Your task to perform on an android device: remove spam from my inbox in the gmail app Image 0: 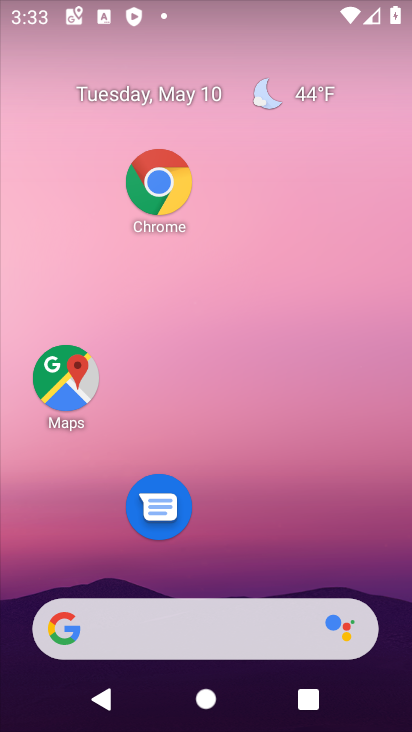
Step 0: drag from (298, 555) to (273, 232)
Your task to perform on an android device: remove spam from my inbox in the gmail app Image 1: 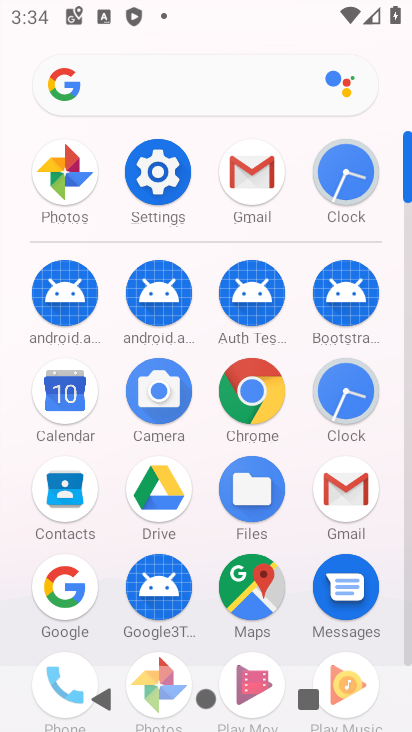
Step 1: click (356, 483)
Your task to perform on an android device: remove spam from my inbox in the gmail app Image 2: 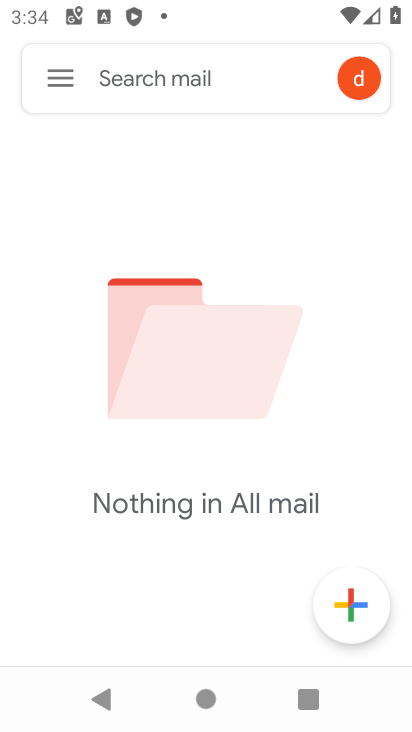
Step 2: click (75, 86)
Your task to perform on an android device: remove spam from my inbox in the gmail app Image 3: 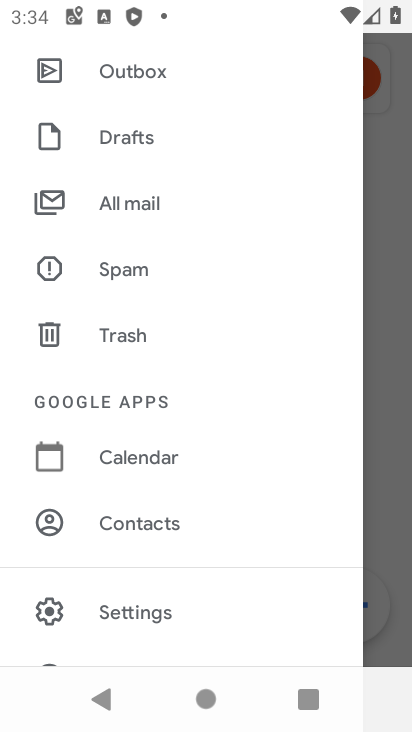
Step 3: click (110, 282)
Your task to perform on an android device: remove spam from my inbox in the gmail app Image 4: 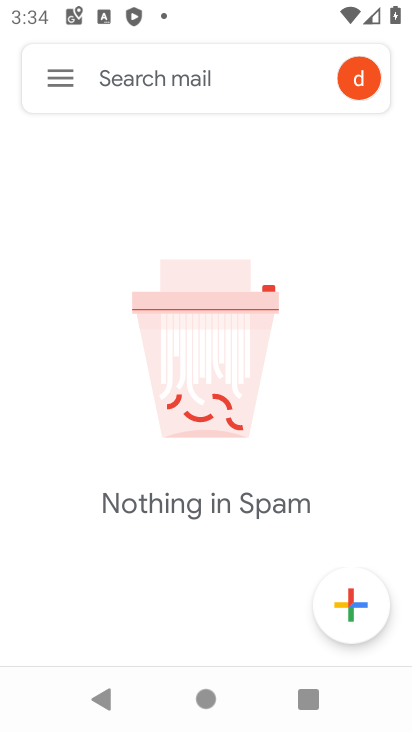
Step 4: task complete